Your task to perform on an android device: set an alarm Image 0: 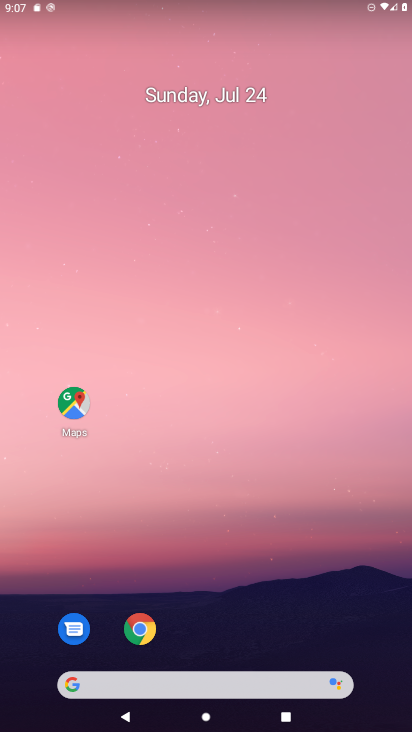
Step 0: drag from (329, 597) to (140, 0)
Your task to perform on an android device: set an alarm Image 1: 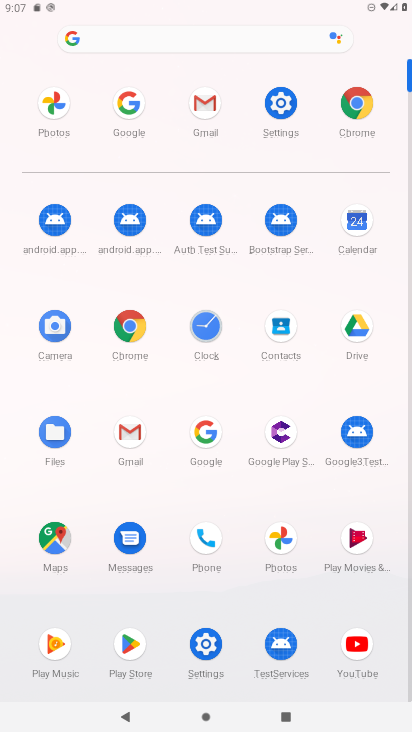
Step 1: click (216, 337)
Your task to perform on an android device: set an alarm Image 2: 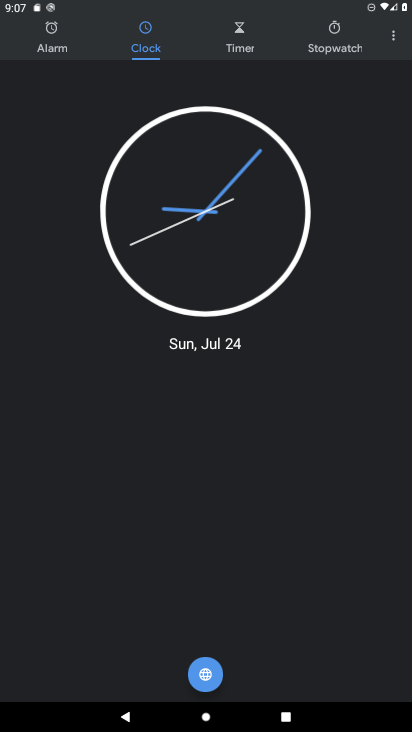
Step 2: click (30, 42)
Your task to perform on an android device: set an alarm Image 3: 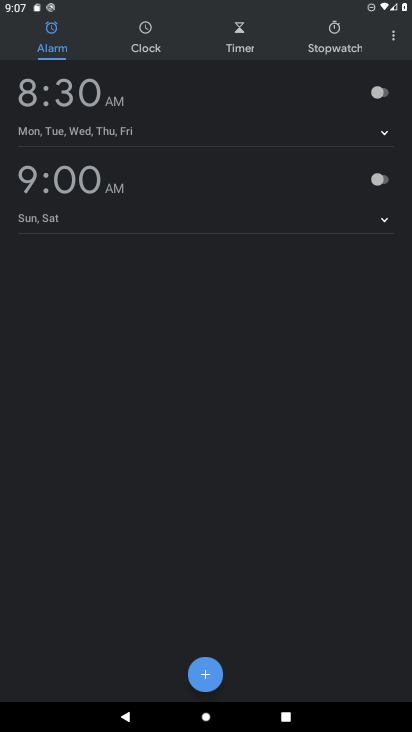
Step 3: click (404, 93)
Your task to perform on an android device: set an alarm Image 4: 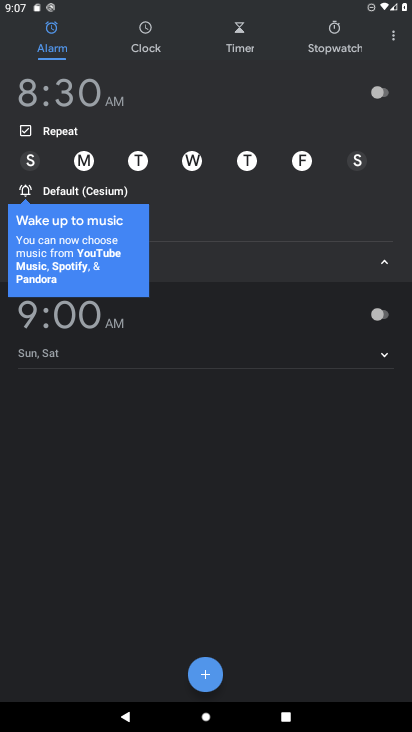
Step 4: click (376, 93)
Your task to perform on an android device: set an alarm Image 5: 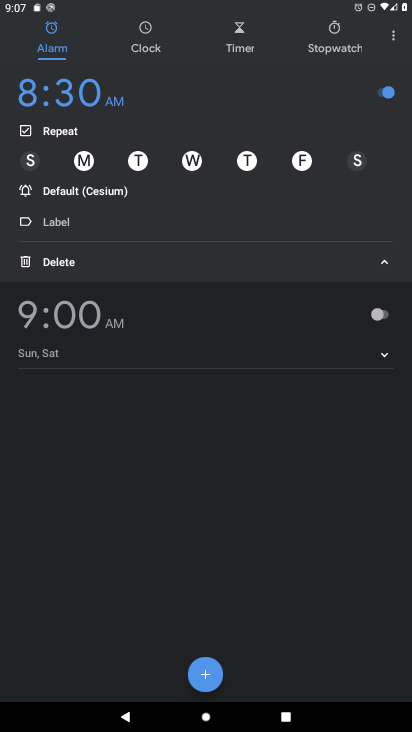
Step 5: task complete